Your task to perform on an android device: Search for seafood restaurants on Google Maps Image 0: 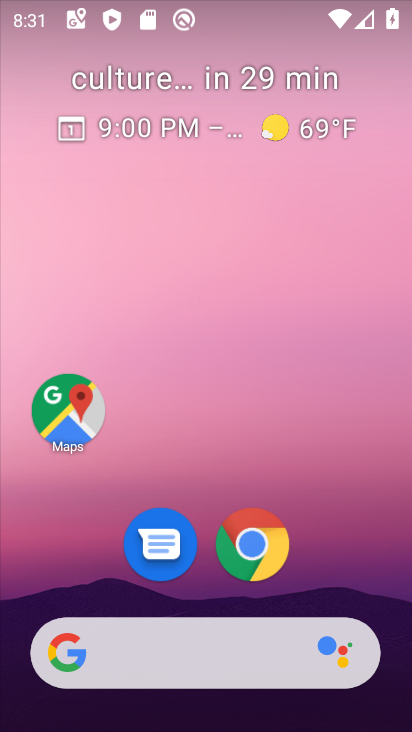
Step 0: drag from (199, 588) to (244, 249)
Your task to perform on an android device: Search for seafood restaurants on Google Maps Image 1: 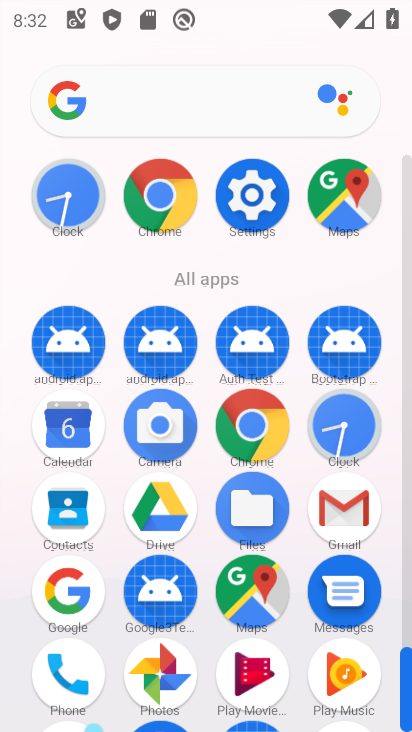
Step 1: click (258, 598)
Your task to perform on an android device: Search for seafood restaurants on Google Maps Image 2: 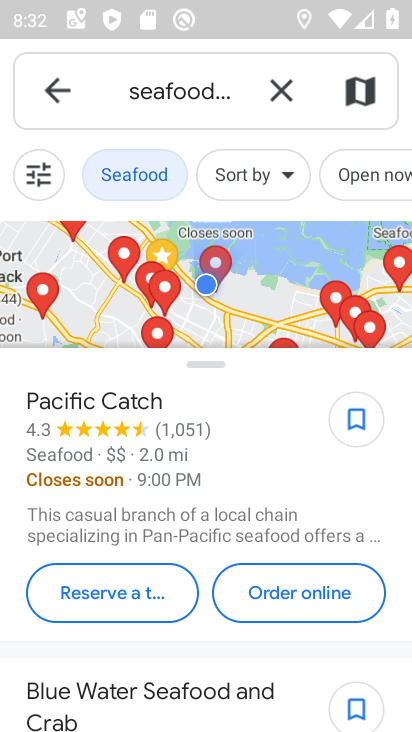
Step 2: task complete